Your task to perform on an android device: Open Maps and search for coffee Image 0: 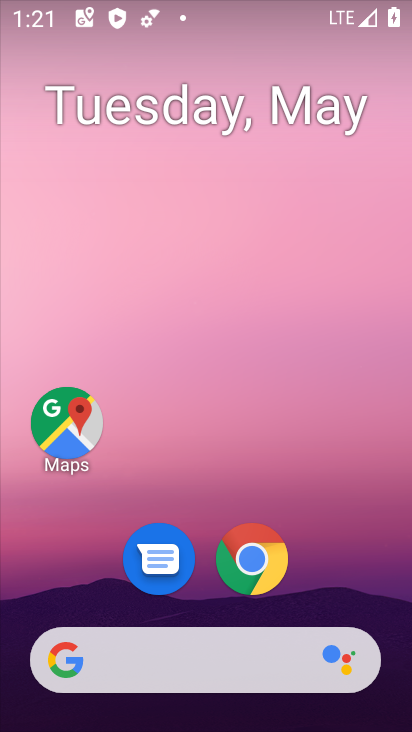
Step 0: click (74, 426)
Your task to perform on an android device: Open Maps and search for coffee Image 1: 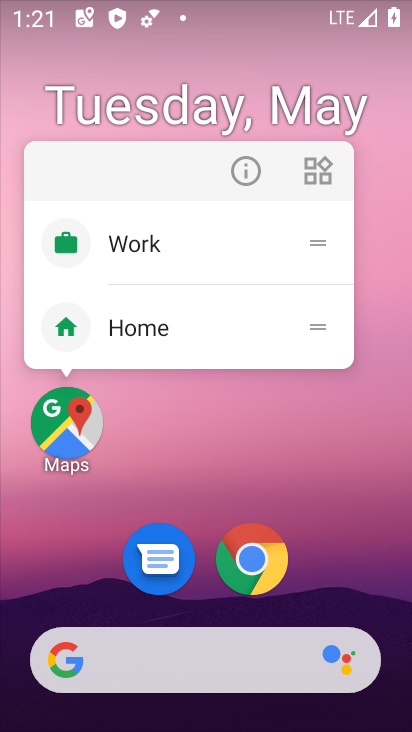
Step 1: click (75, 426)
Your task to perform on an android device: Open Maps and search for coffee Image 2: 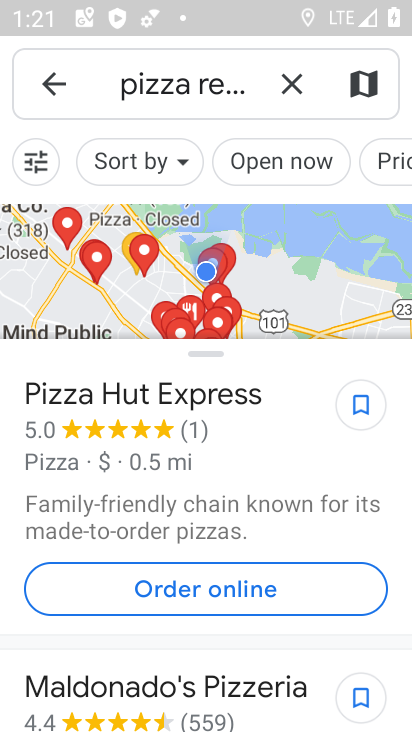
Step 2: click (292, 85)
Your task to perform on an android device: Open Maps and search for coffee Image 3: 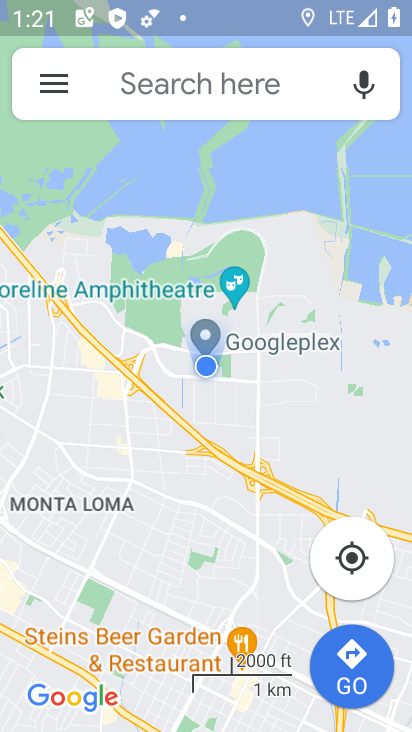
Step 3: click (143, 75)
Your task to perform on an android device: Open Maps and search for coffee Image 4: 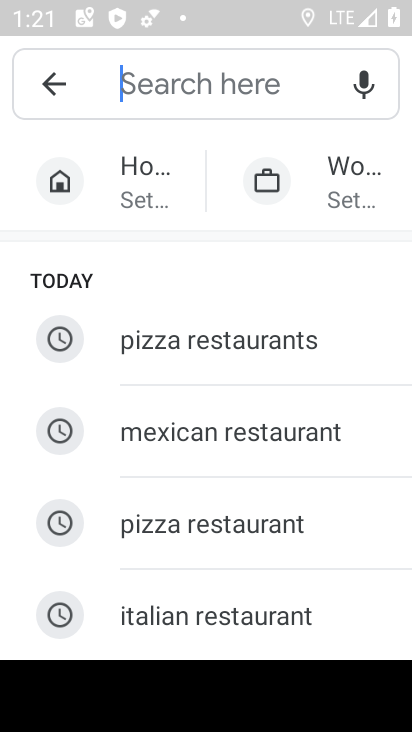
Step 4: type "coffee"
Your task to perform on an android device: Open Maps and search for coffee Image 5: 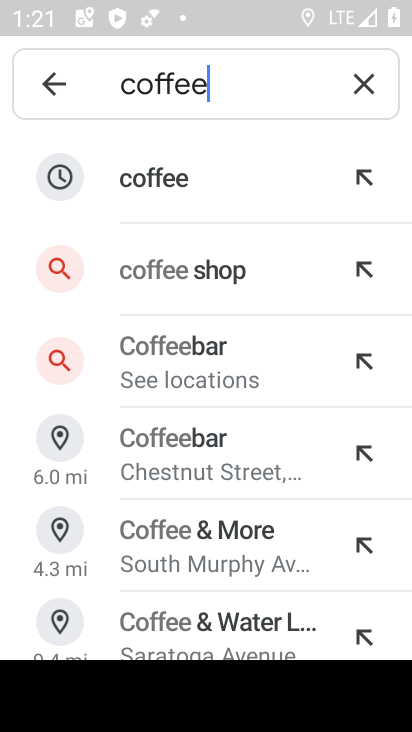
Step 5: click (183, 184)
Your task to perform on an android device: Open Maps and search for coffee Image 6: 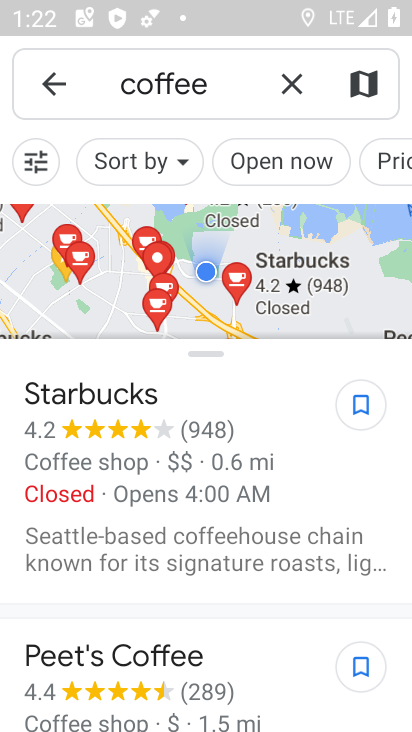
Step 6: task complete